Your task to perform on an android device: turn on translation in the chrome app Image 0: 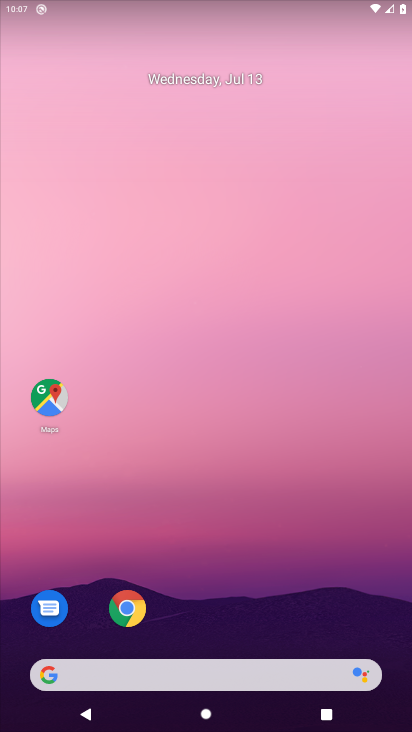
Step 0: click (115, 613)
Your task to perform on an android device: turn on translation in the chrome app Image 1: 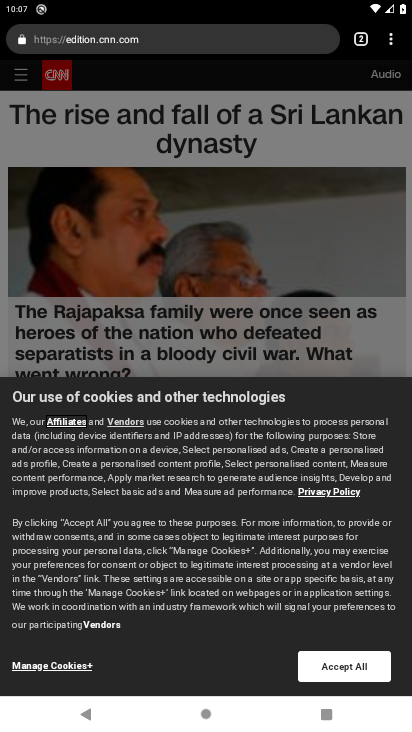
Step 1: click (388, 41)
Your task to perform on an android device: turn on translation in the chrome app Image 2: 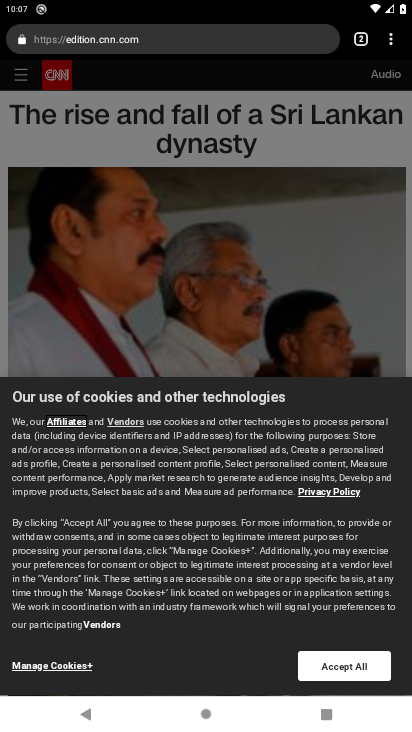
Step 2: click (384, 32)
Your task to perform on an android device: turn on translation in the chrome app Image 3: 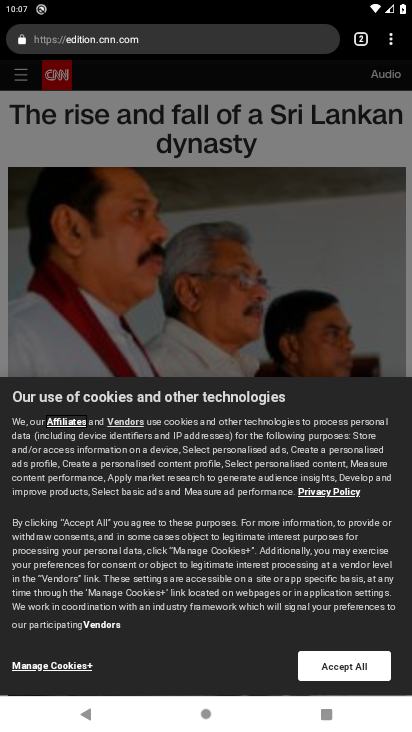
Step 3: click (389, 39)
Your task to perform on an android device: turn on translation in the chrome app Image 4: 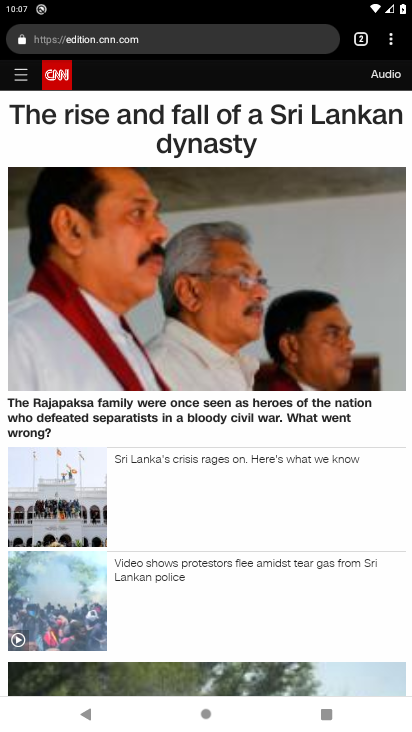
Step 4: task complete